Your task to perform on an android device: Open CNN.com Image 0: 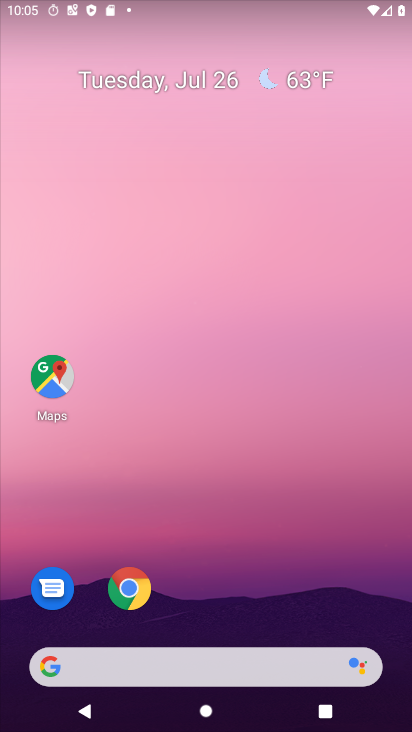
Step 0: click (129, 590)
Your task to perform on an android device: Open CNN.com Image 1: 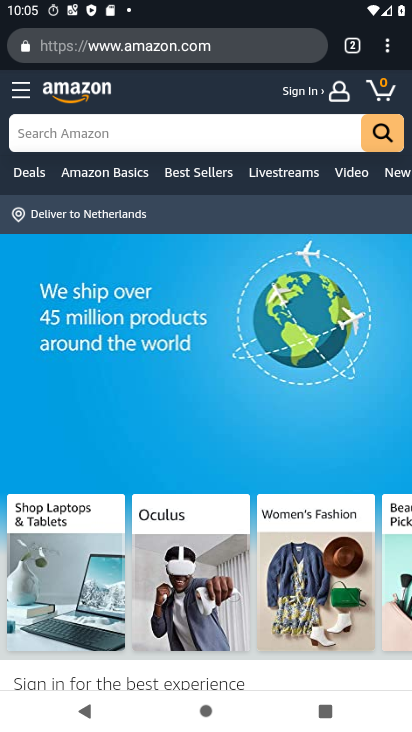
Step 1: click (358, 58)
Your task to perform on an android device: Open CNN.com Image 2: 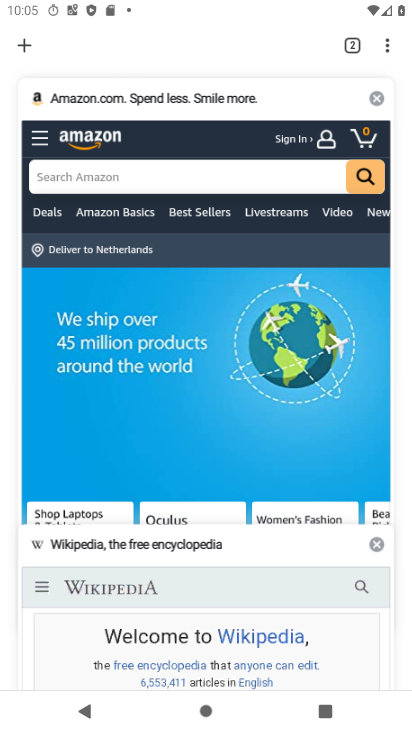
Step 2: click (23, 50)
Your task to perform on an android device: Open CNN.com Image 3: 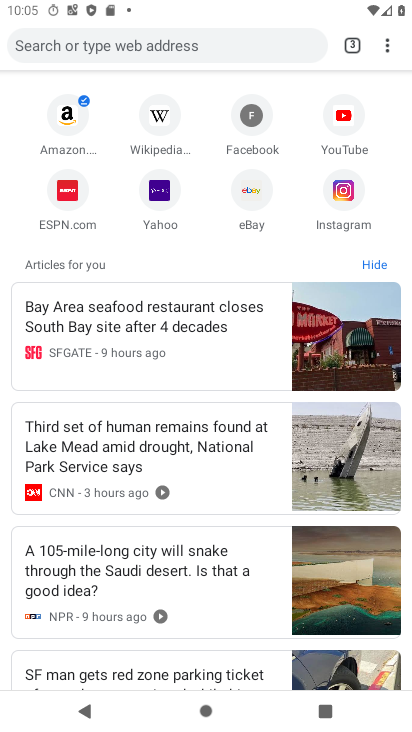
Step 3: click (100, 433)
Your task to perform on an android device: Open CNN.com Image 4: 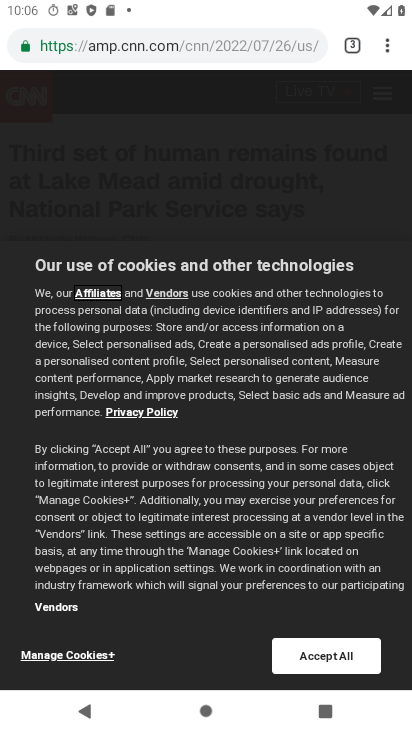
Step 4: task complete